Your task to perform on an android device: change the clock display to analog Image 0: 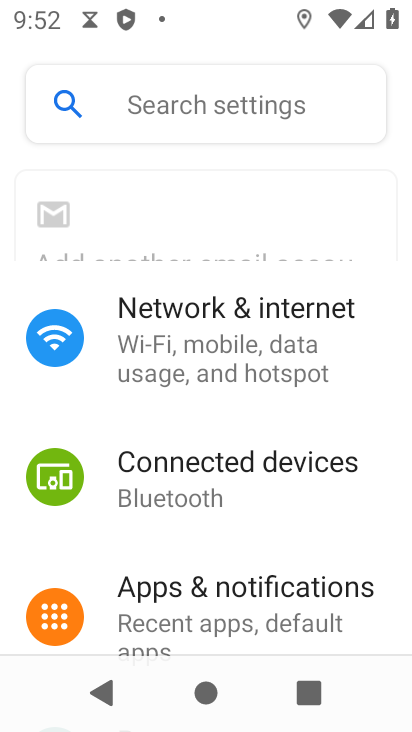
Step 0: drag from (295, 540) to (313, 165)
Your task to perform on an android device: change the clock display to analog Image 1: 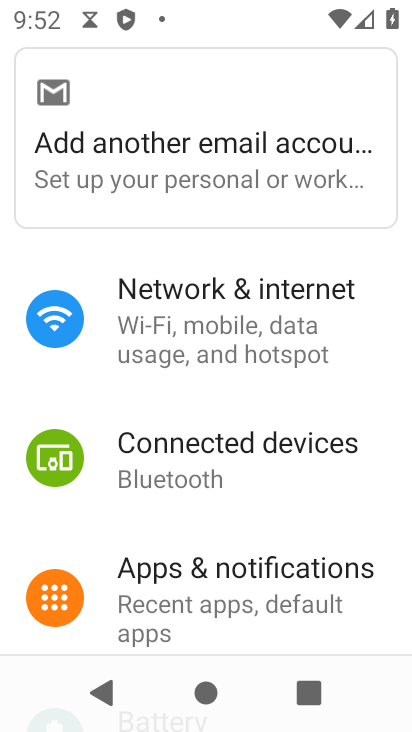
Step 1: press home button
Your task to perform on an android device: change the clock display to analog Image 2: 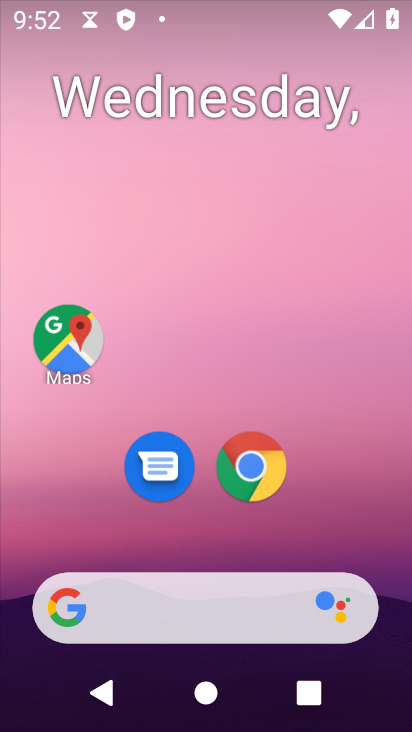
Step 2: drag from (235, 545) to (225, 178)
Your task to perform on an android device: change the clock display to analog Image 3: 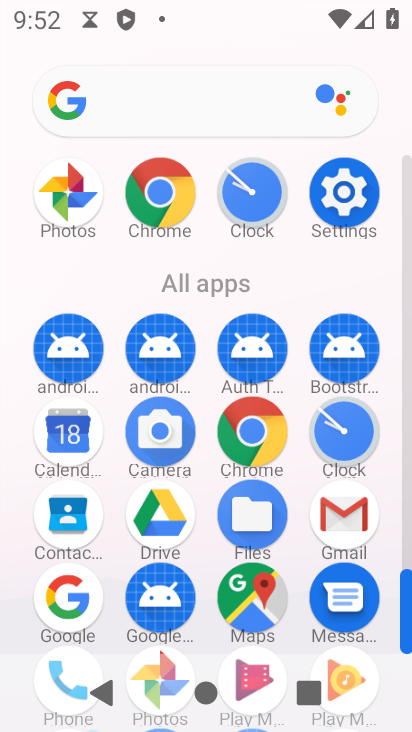
Step 3: click (351, 439)
Your task to perform on an android device: change the clock display to analog Image 4: 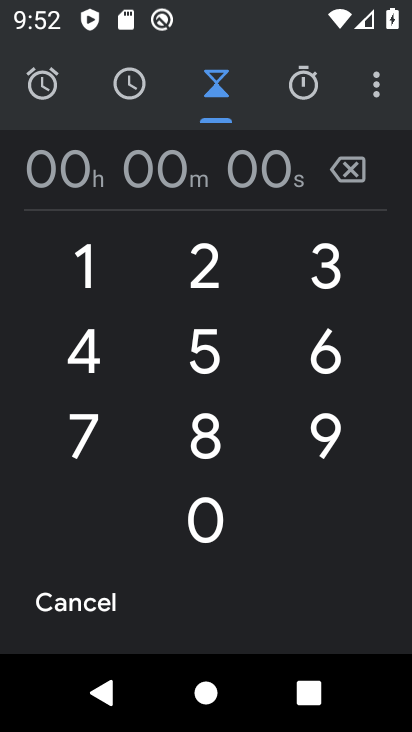
Step 4: click (380, 96)
Your task to perform on an android device: change the clock display to analog Image 5: 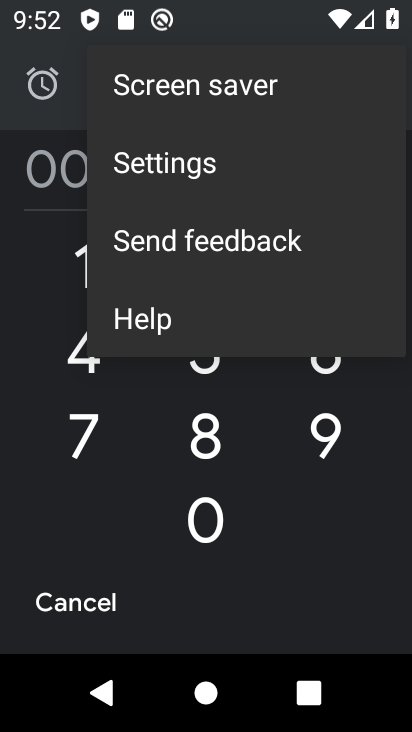
Step 5: click (192, 167)
Your task to perform on an android device: change the clock display to analog Image 6: 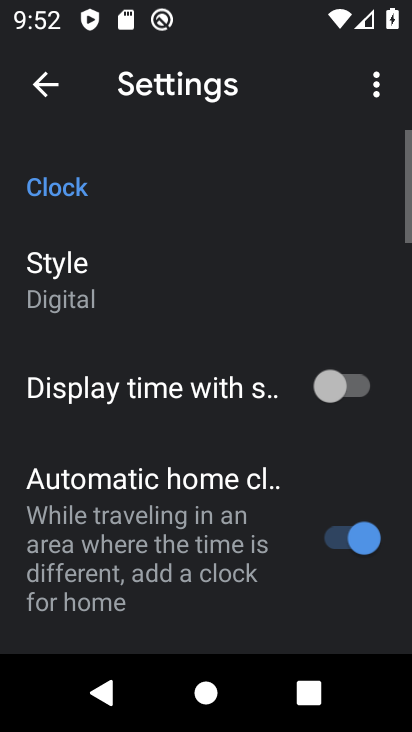
Step 6: click (80, 274)
Your task to perform on an android device: change the clock display to analog Image 7: 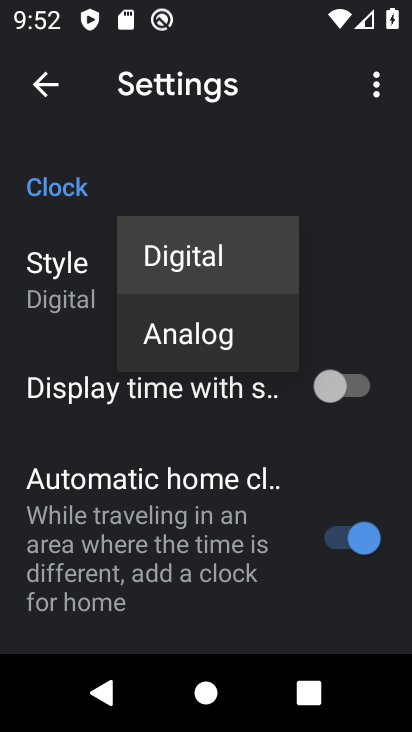
Step 7: click (166, 334)
Your task to perform on an android device: change the clock display to analog Image 8: 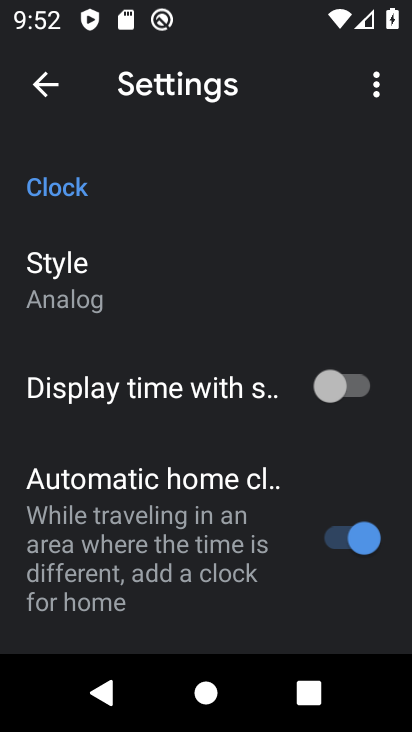
Step 8: task complete